Your task to perform on an android device: stop showing notifications on the lock screen Image 0: 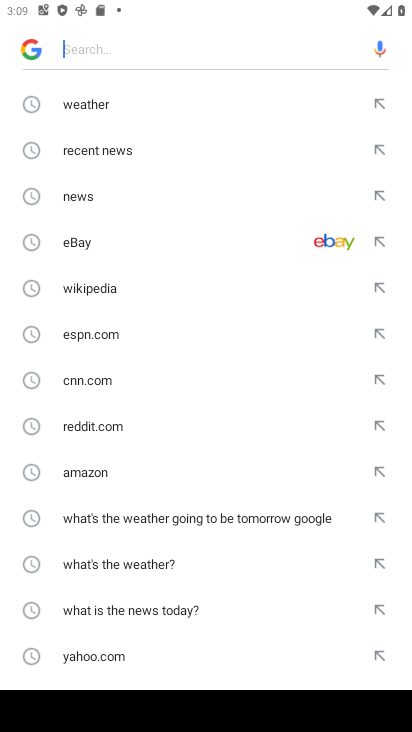
Step 0: press home button
Your task to perform on an android device: stop showing notifications on the lock screen Image 1: 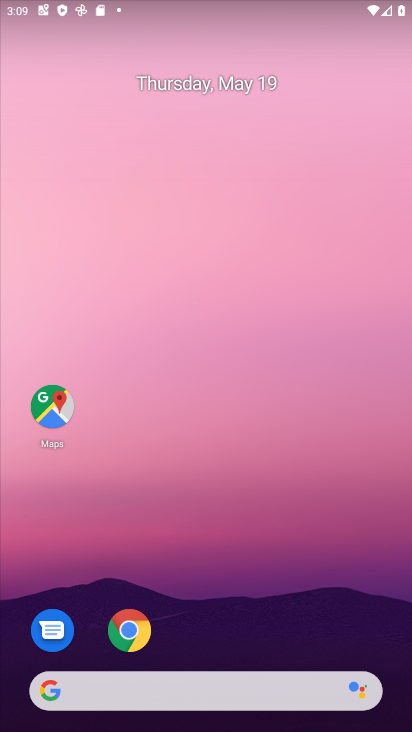
Step 1: drag from (373, 647) to (307, 101)
Your task to perform on an android device: stop showing notifications on the lock screen Image 2: 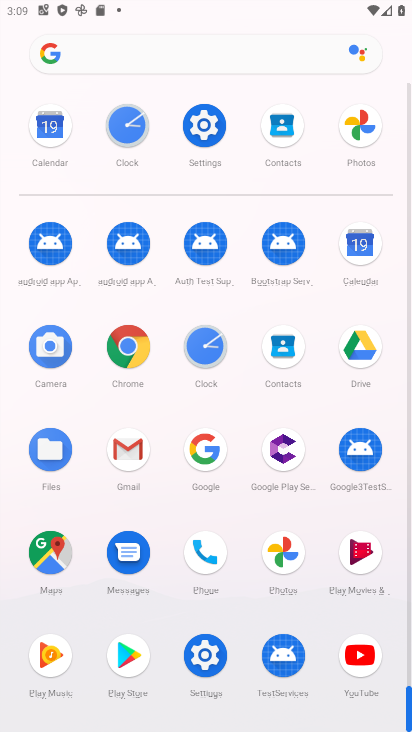
Step 2: click (203, 653)
Your task to perform on an android device: stop showing notifications on the lock screen Image 3: 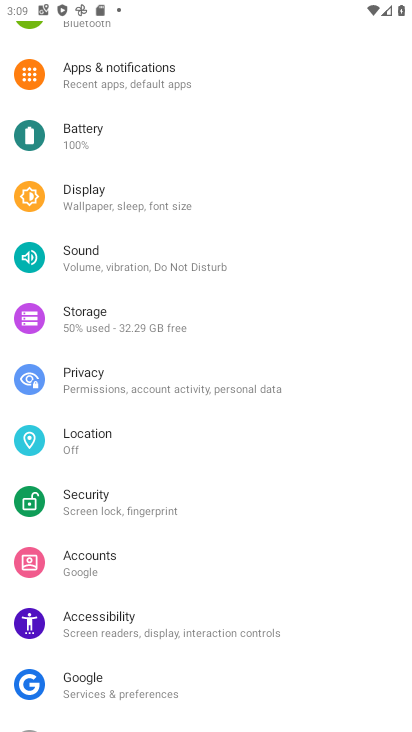
Step 3: click (101, 71)
Your task to perform on an android device: stop showing notifications on the lock screen Image 4: 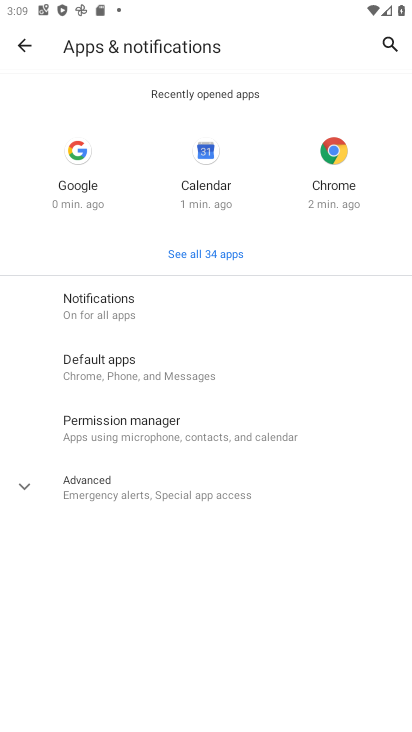
Step 4: click (90, 302)
Your task to perform on an android device: stop showing notifications on the lock screen Image 5: 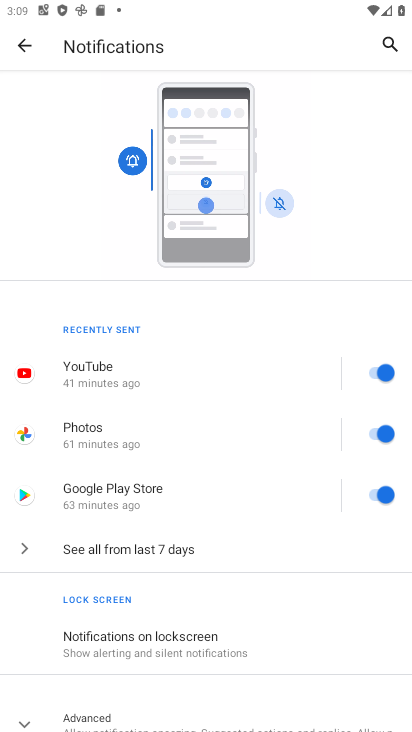
Step 5: click (189, 643)
Your task to perform on an android device: stop showing notifications on the lock screen Image 6: 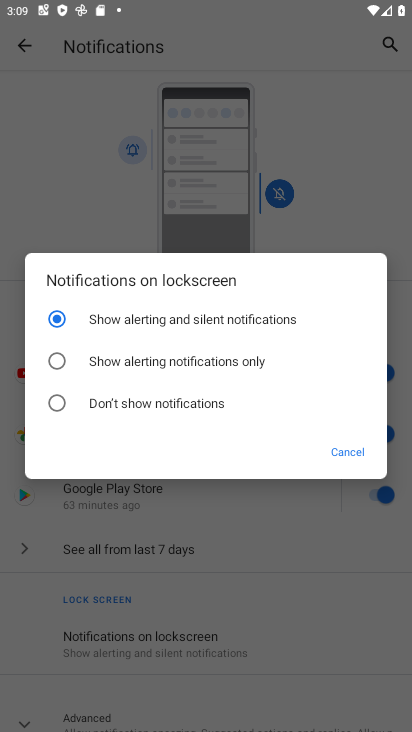
Step 6: click (59, 403)
Your task to perform on an android device: stop showing notifications on the lock screen Image 7: 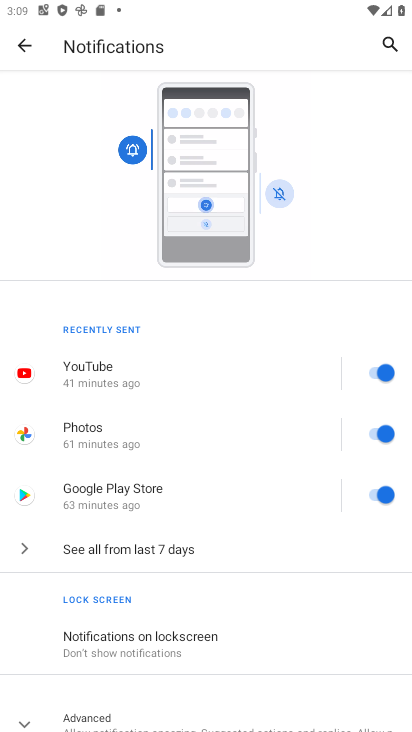
Step 7: task complete